Your task to perform on an android device: visit the assistant section in the google photos Image 0: 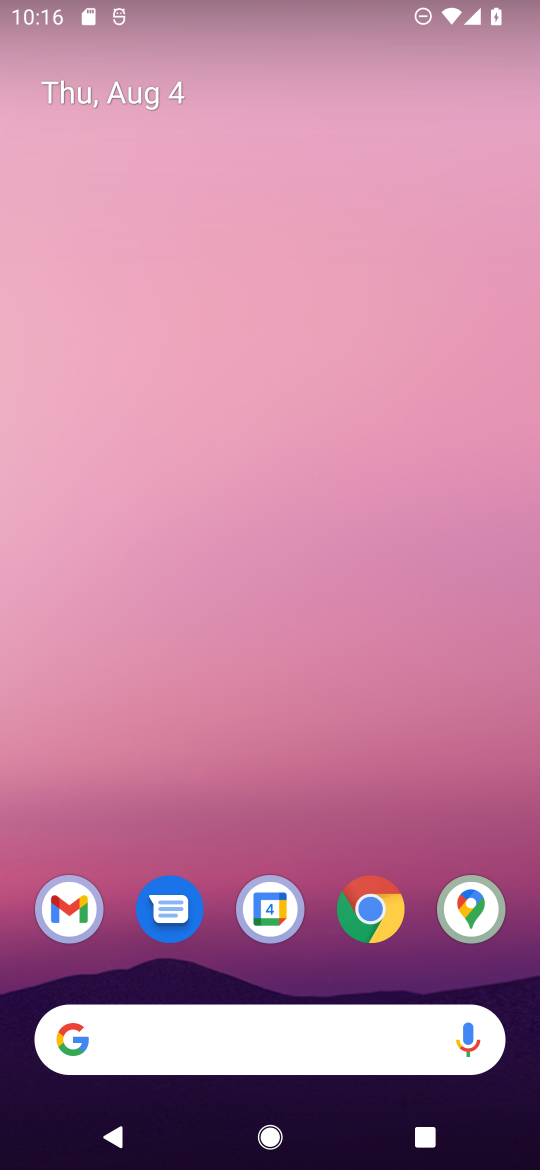
Step 0: drag from (318, 866) to (322, 58)
Your task to perform on an android device: visit the assistant section in the google photos Image 1: 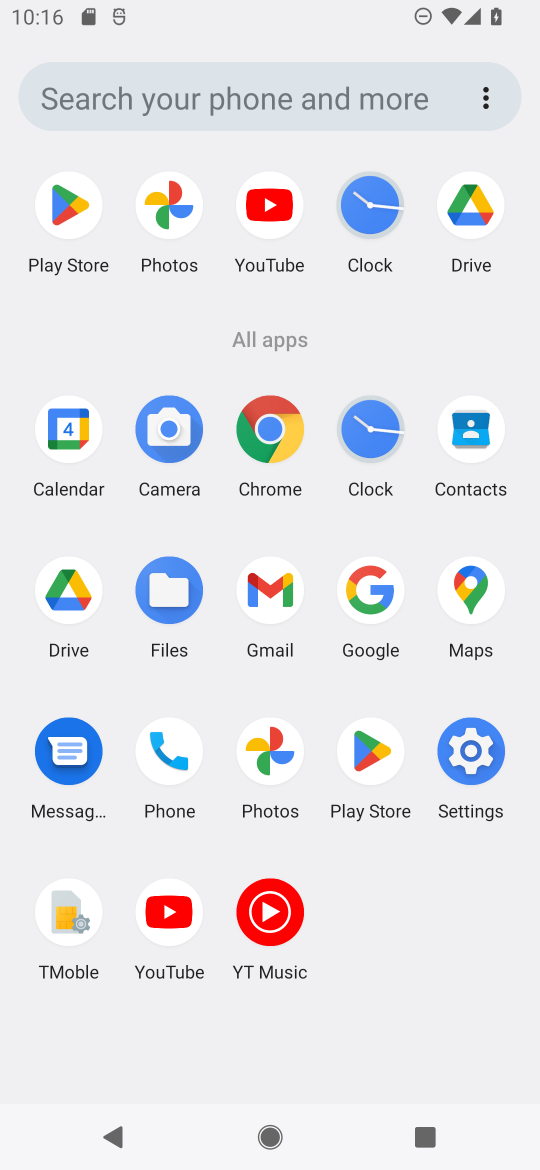
Step 1: click (267, 761)
Your task to perform on an android device: visit the assistant section in the google photos Image 2: 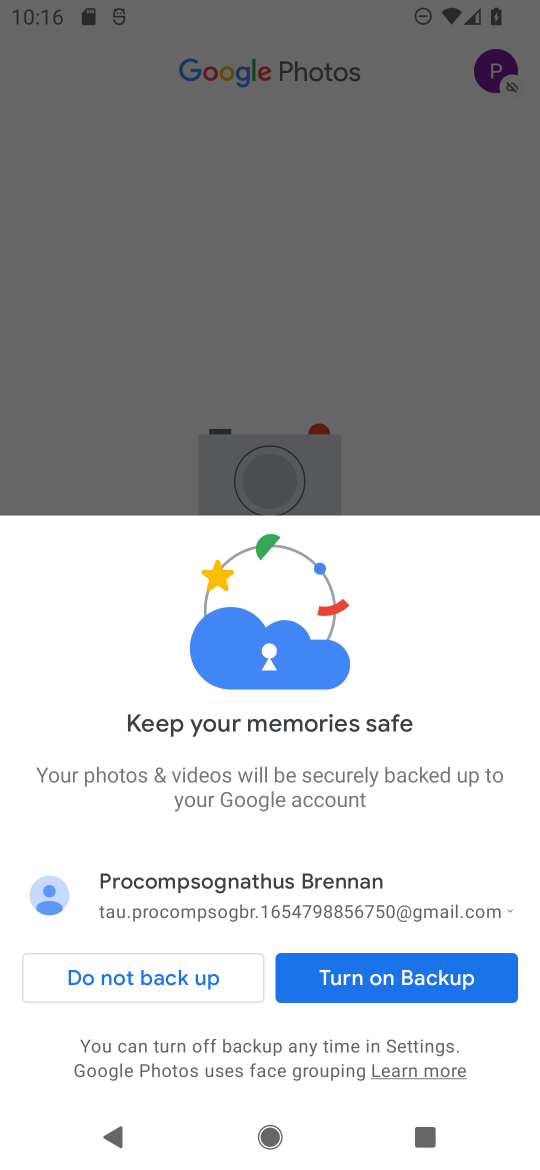
Step 2: click (159, 984)
Your task to perform on an android device: visit the assistant section in the google photos Image 3: 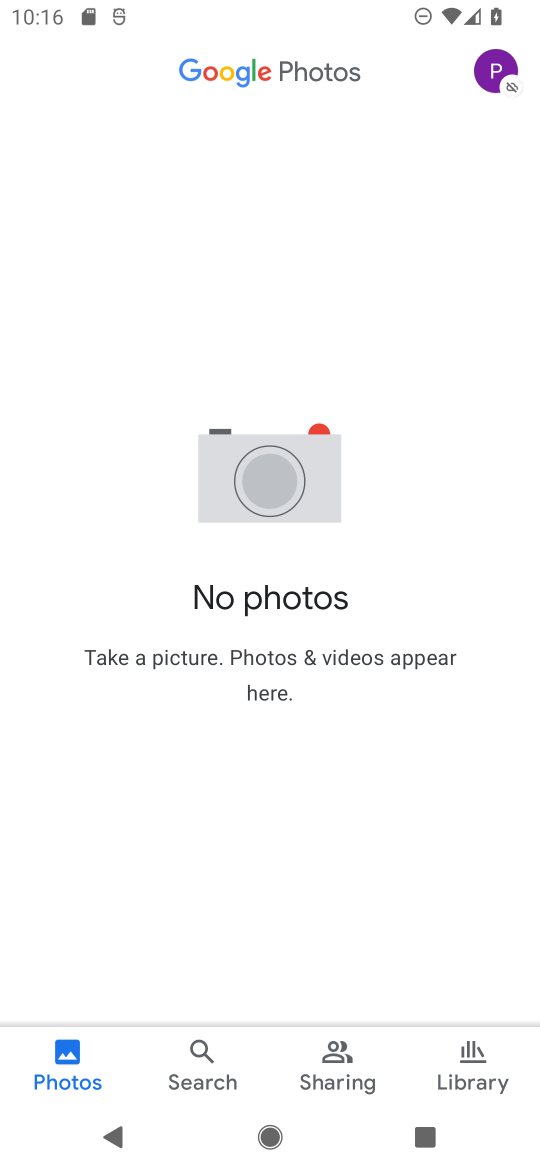
Step 3: click (261, 78)
Your task to perform on an android device: visit the assistant section in the google photos Image 4: 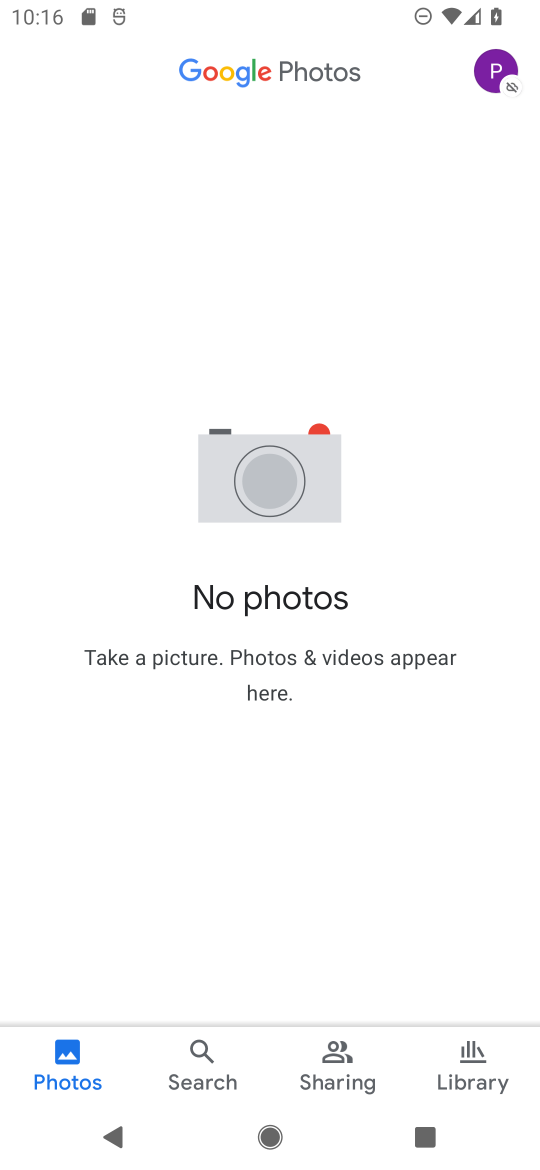
Step 4: click (493, 68)
Your task to perform on an android device: visit the assistant section in the google photos Image 5: 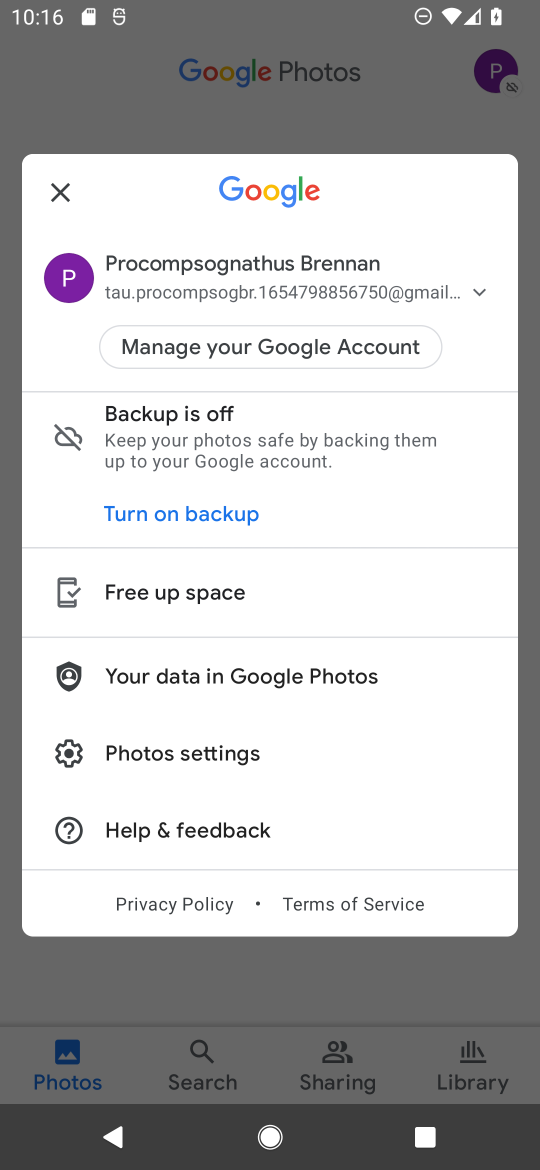
Step 5: drag from (175, 751) to (198, 580)
Your task to perform on an android device: visit the assistant section in the google photos Image 6: 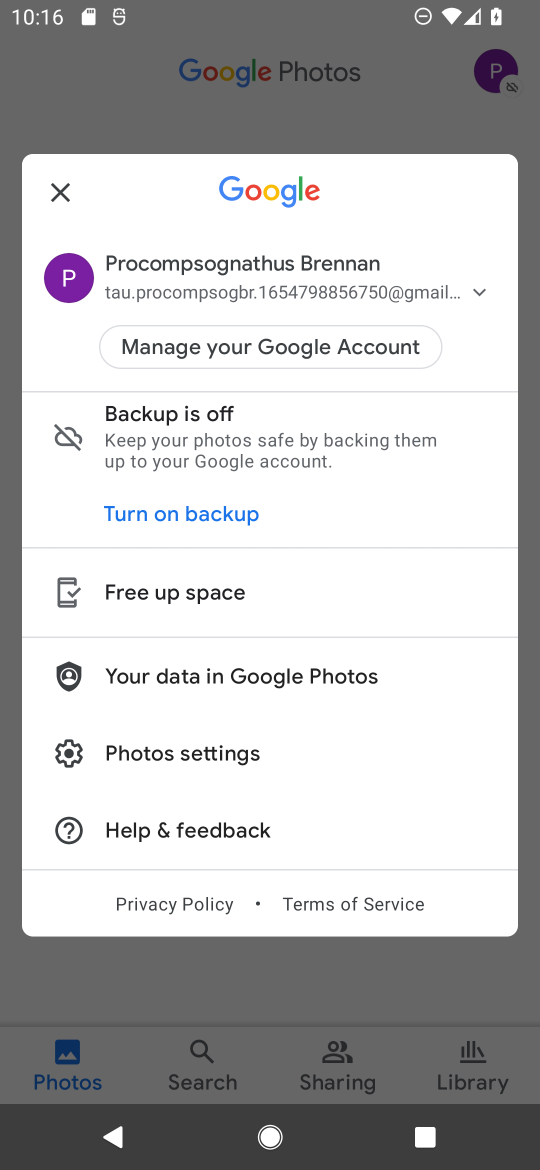
Step 6: click (193, 519)
Your task to perform on an android device: visit the assistant section in the google photos Image 7: 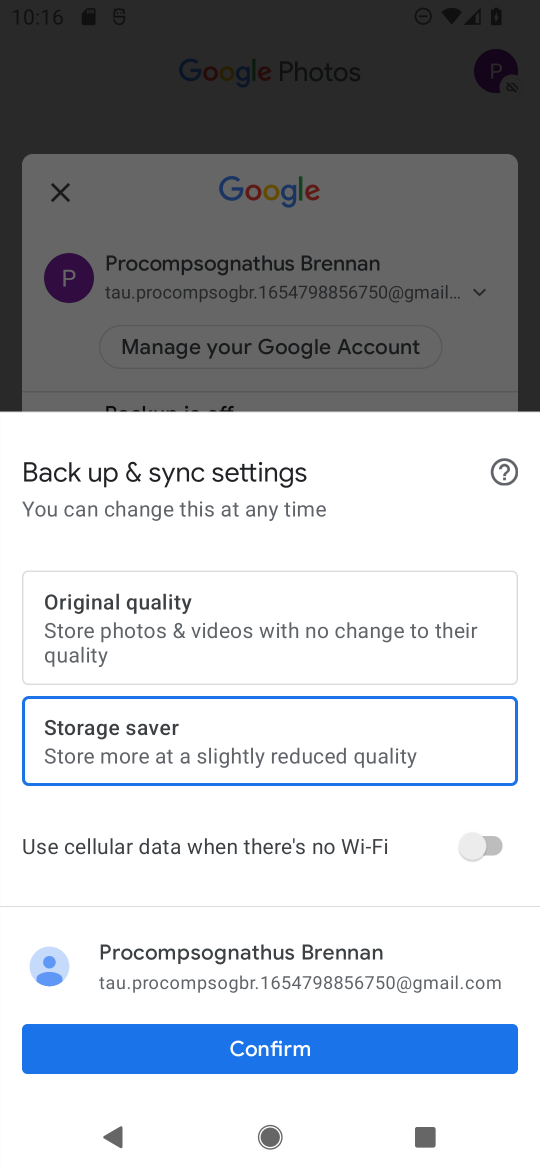
Step 7: click (276, 1047)
Your task to perform on an android device: visit the assistant section in the google photos Image 8: 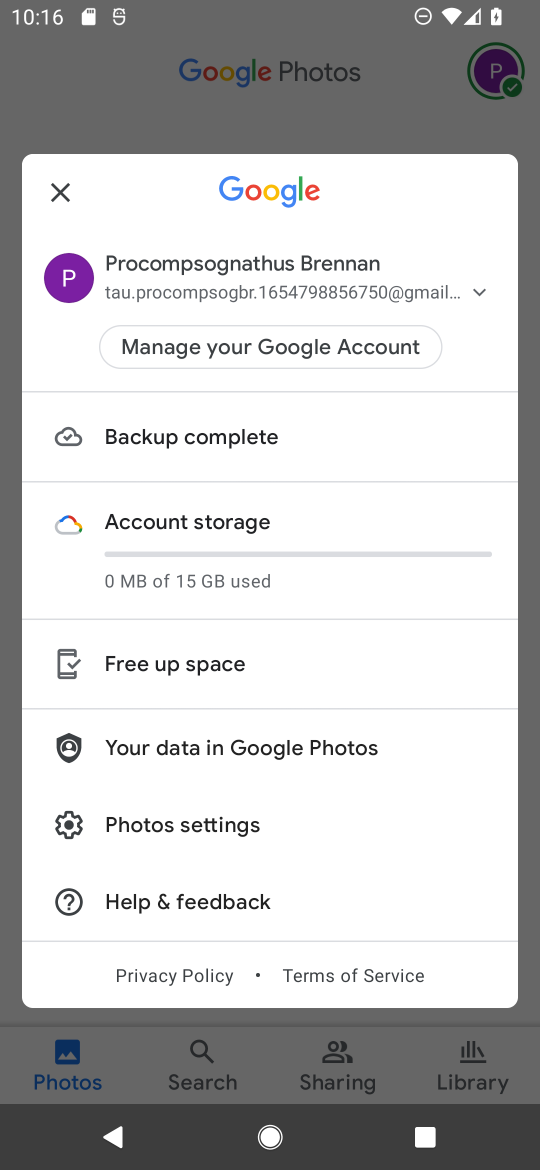
Step 8: click (61, 202)
Your task to perform on an android device: visit the assistant section in the google photos Image 9: 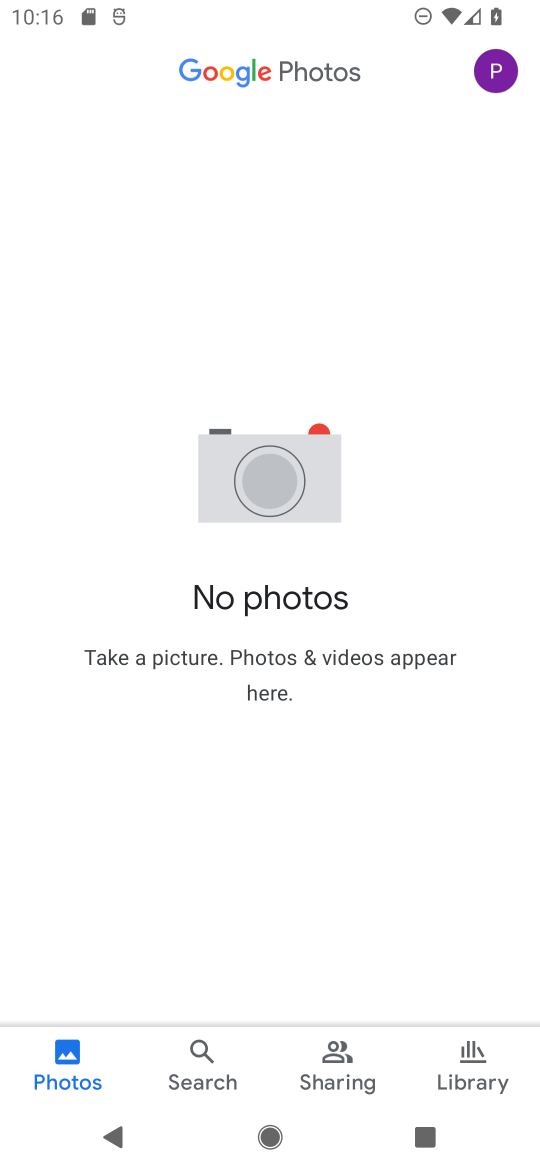
Step 9: click (256, 67)
Your task to perform on an android device: visit the assistant section in the google photos Image 10: 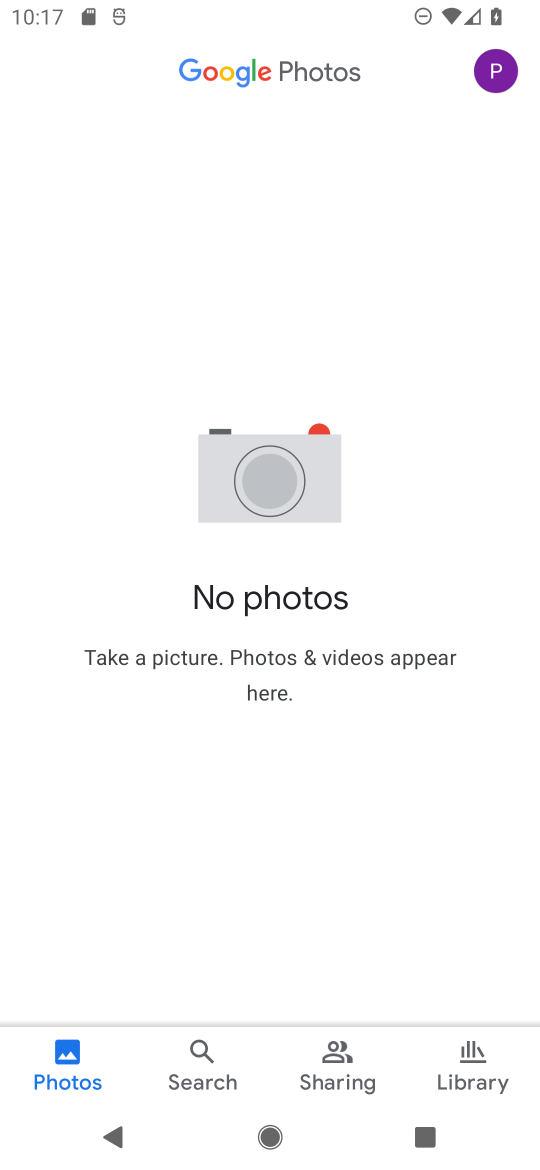
Step 10: task complete